Your task to perform on an android device: see sites visited before in the chrome app Image 0: 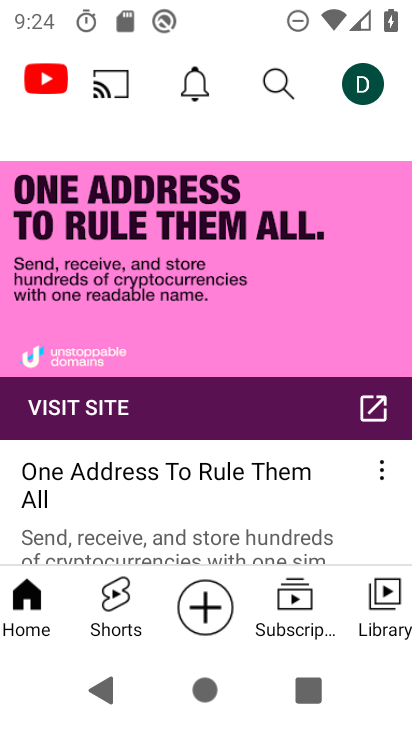
Step 0: press home button
Your task to perform on an android device: see sites visited before in the chrome app Image 1: 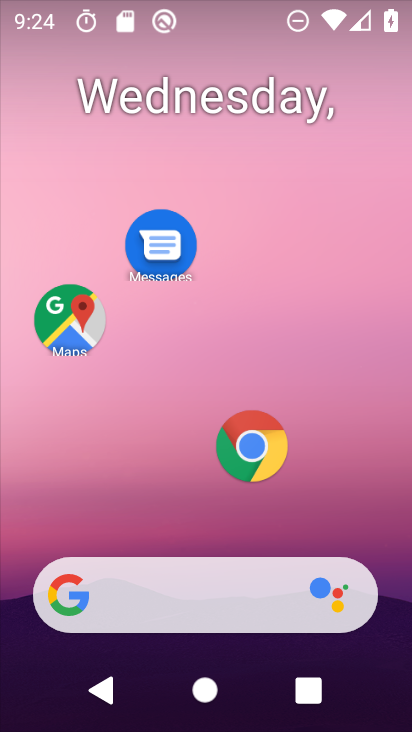
Step 1: click (252, 441)
Your task to perform on an android device: see sites visited before in the chrome app Image 2: 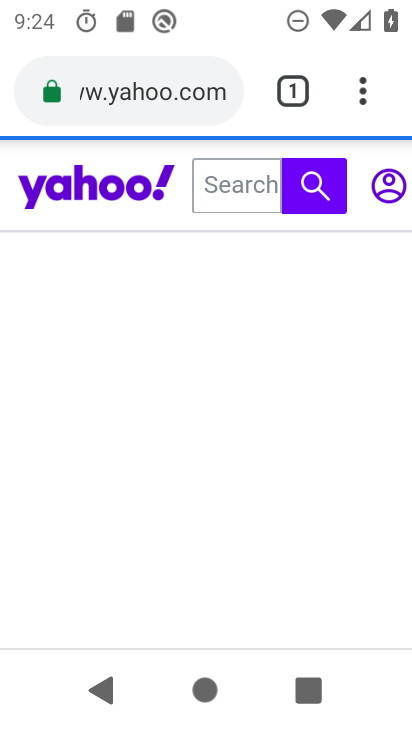
Step 2: click (367, 91)
Your task to perform on an android device: see sites visited before in the chrome app Image 3: 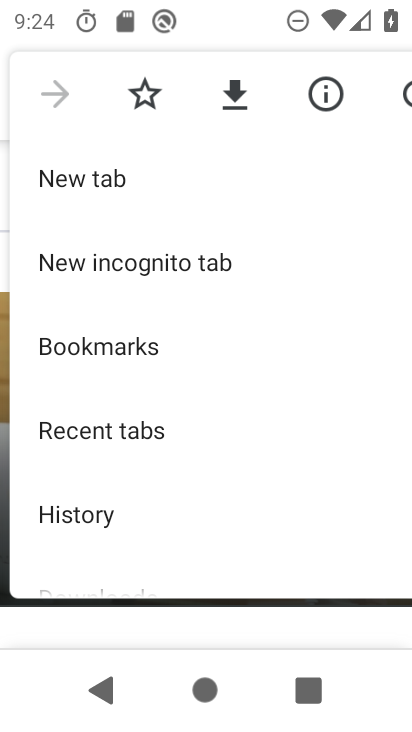
Step 3: click (119, 509)
Your task to perform on an android device: see sites visited before in the chrome app Image 4: 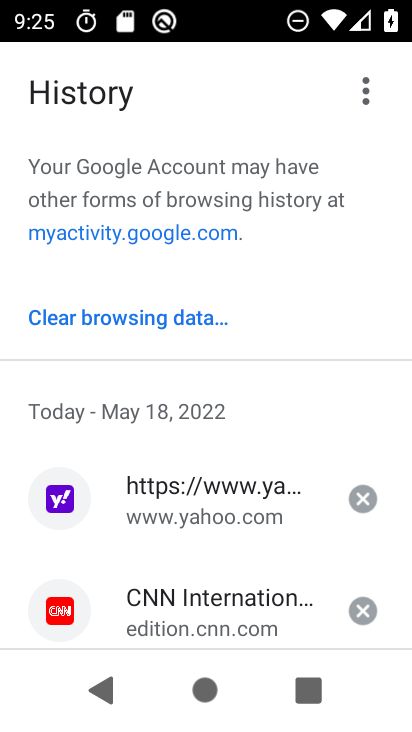
Step 4: task complete